Your task to perform on an android device: Open internet settings Image 0: 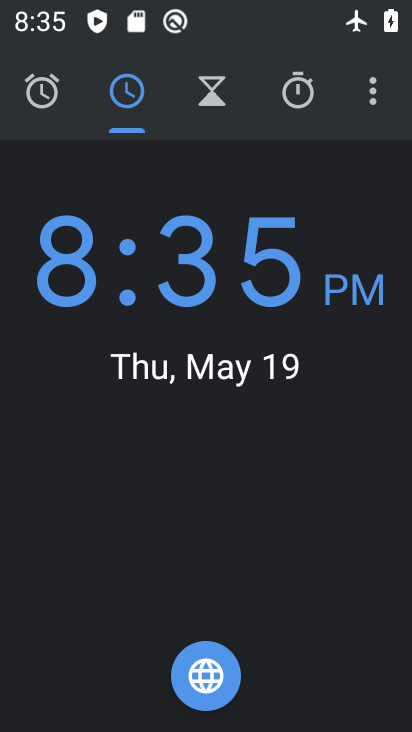
Step 0: press back button
Your task to perform on an android device: Open internet settings Image 1: 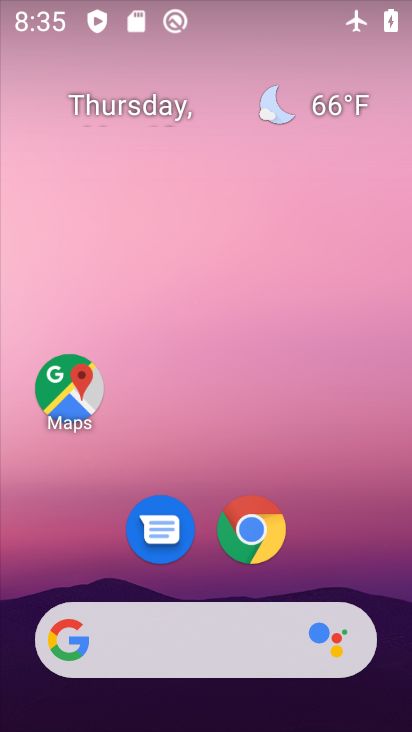
Step 1: drag from (323, 530) to (251, 4)
Your task to perform on an android device: Open internet settings Image 2: 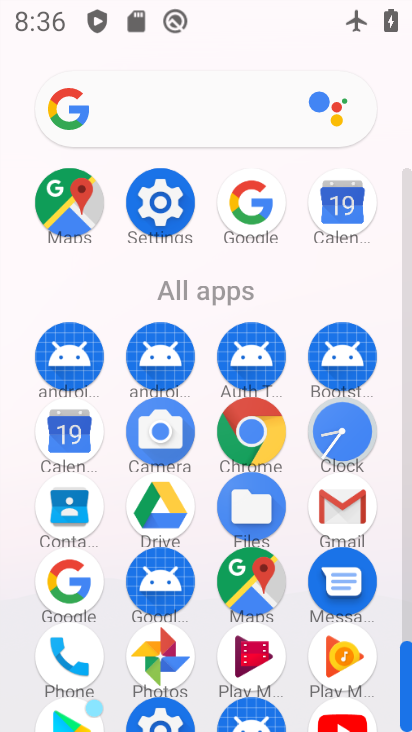
Step 2: click (160, 202)
Your task to perform on an android device: Open internet settings Image 3: 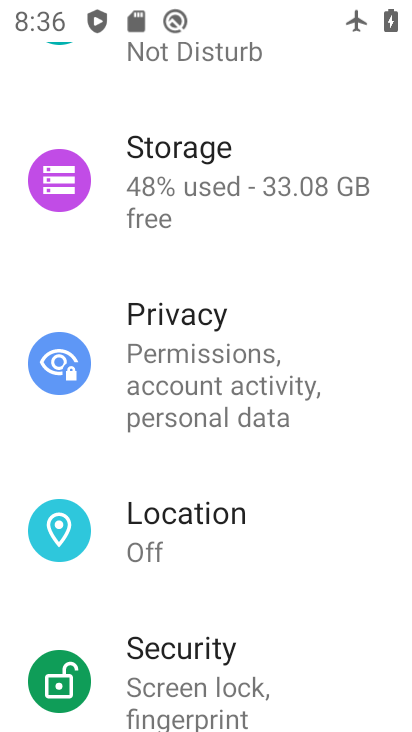
Step 3: click (279, 394)
Your task to perform on an android device: Open internet settings Image 4: 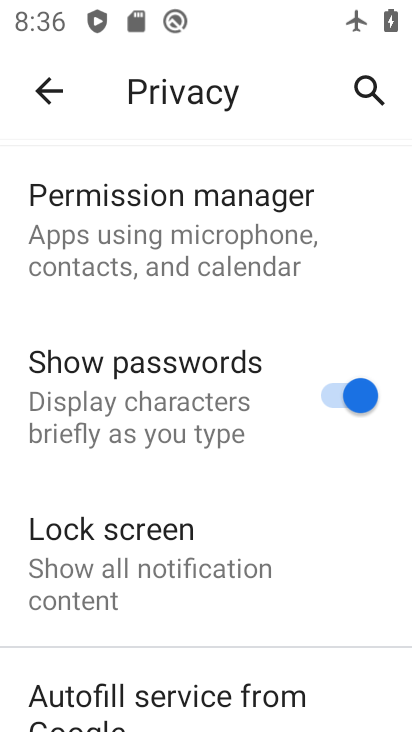
Step 4: drag from (119, 325) to (148, 550)
Your task to perform on an android device: Open internet settings Image 5: 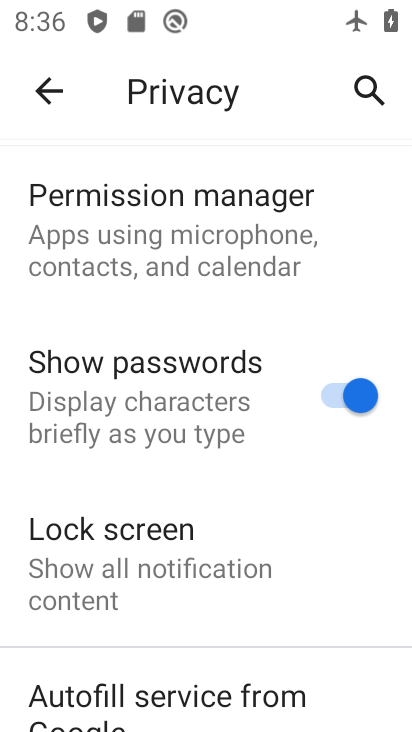
Step 5: press back button
Your task to perform on an android device: Open internet settings Image 6: 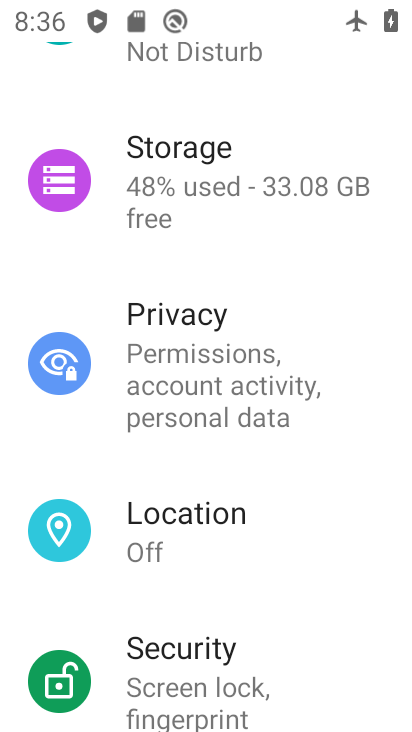
Step 6: drag from (213, 247) to (201, 409)
Your task to perform on an android device: Open internet settings Image 7: 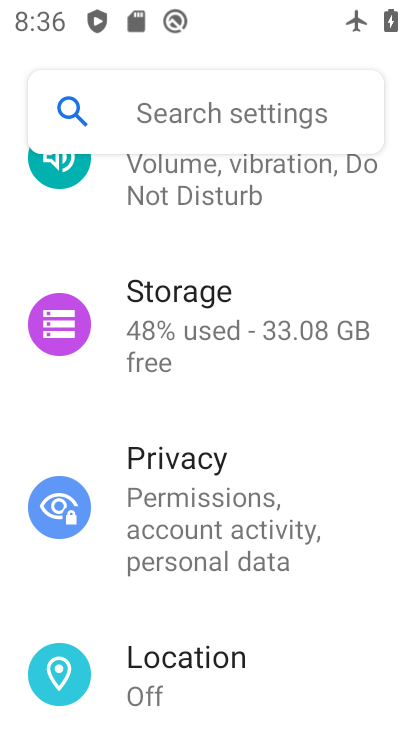
Step 7: drag from (227, 241) to (250, 441)
Your task to perform on an android device: Open internet settings Image 8: 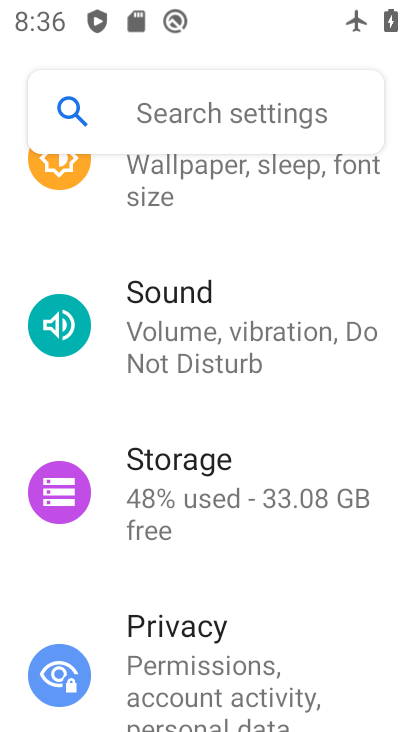
Step 8: drag from (277, 241) to (284, 451)
Your task to perform on an android device: Open internet settings Image 9: 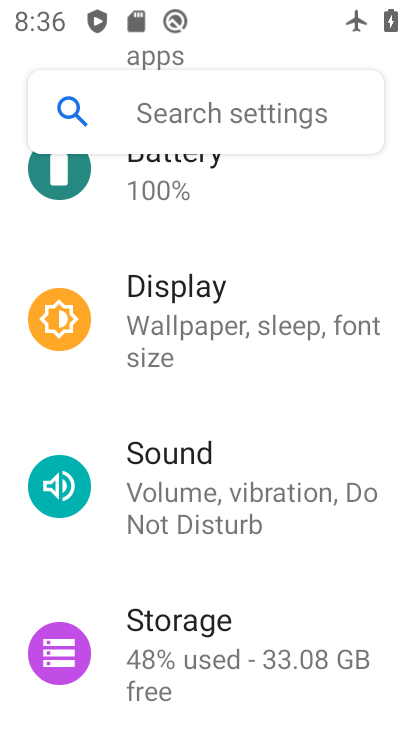
Step 9: drag from (228, 246) to (234, 407)
Your task to perform on an android device: Open internet settings Image 10: 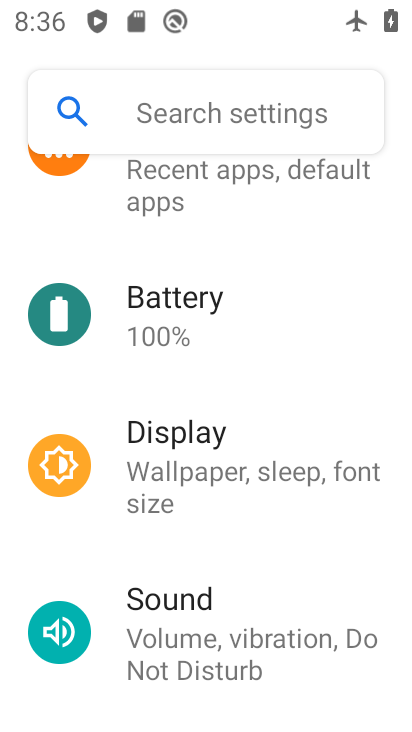
Step 10: drag from (201, 232) to (243, 385)
Your task to perform on an android device: Open internet settings Image 11: 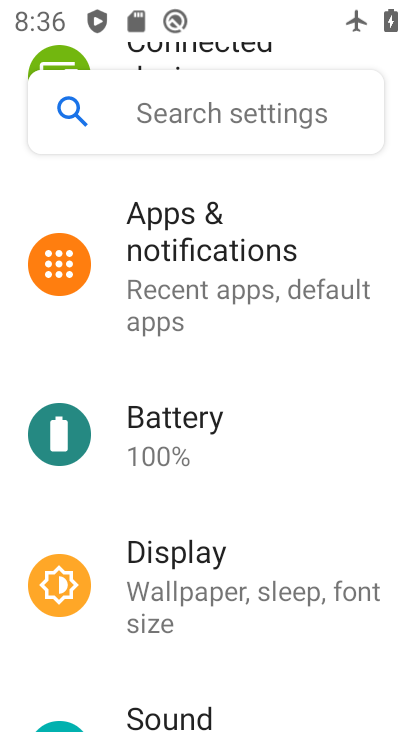
Step 11: drag from (168, 166) to (205, 437)
Your task to perform on an android device: Open internet settings Image 12: 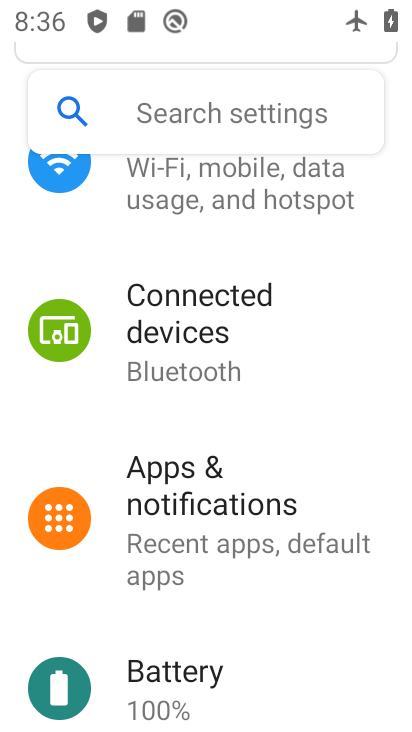
Step 12: drag from (182, 272) to (153, 469)
Your task to perform on an android device: Open internet settings Image 13: 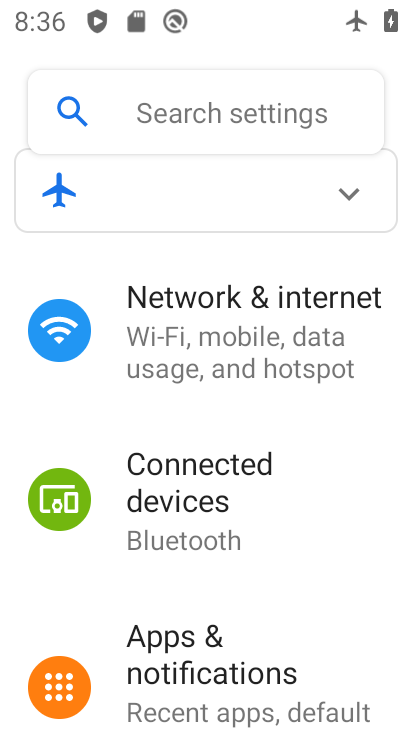
Step 13: click (214, 301)
Your task to perform on an android device: Open internet settings Image 14: 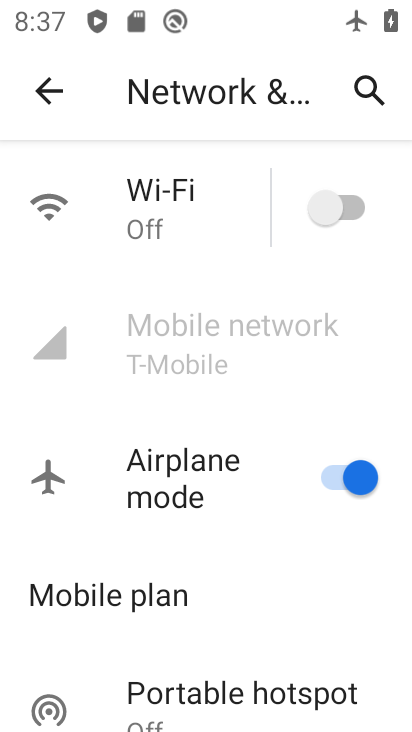
Step 14: task complete